Your task to perform on an android device: toggle pop-ups in chrome Image 0: 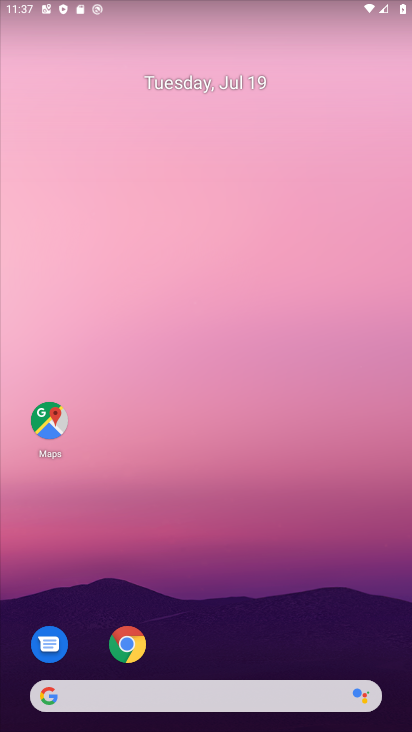
Step 0: click (121, 643)
Your task to perform on an android device: toggle pop-ups in chrome Image 1: 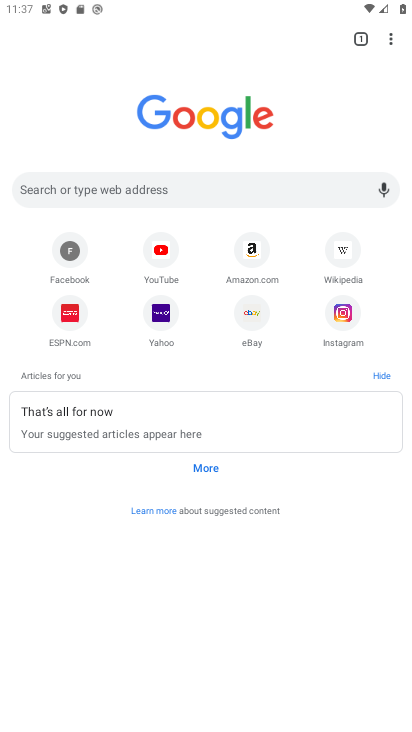
Step 1: click (399, 35)
Your task to perform on an android device: toggle pop-ups in chrome Image 2: 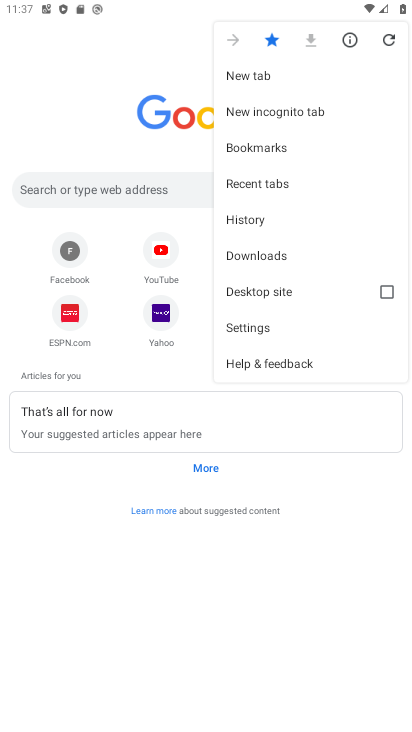
Step 2: click (264, 320)
Your task to perform on an android device: toggle pop-ups in chrome Image 3: 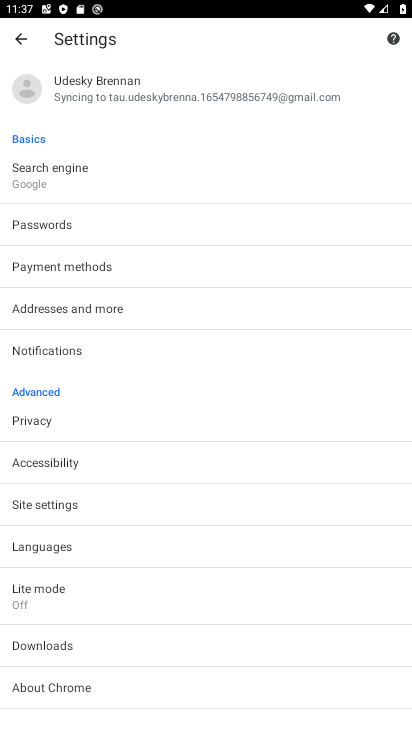
Step 3: click (51, 513)
Your task to perform on an android device: toggle pop-ups in chrome Image 4: 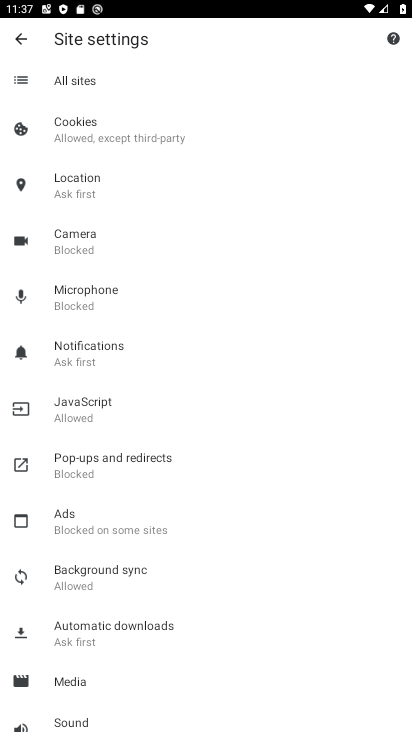
Step 4: click (90, 463)
Your task to perform on an android device: toggle pop-ups in chrome Image 5: 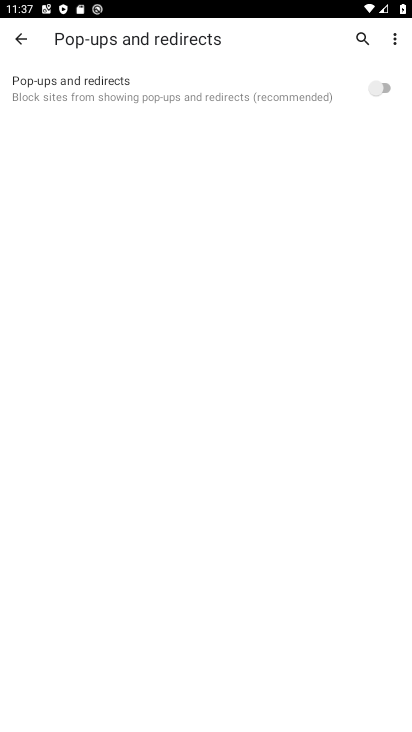
Step 5: click (385, 90)
Your task to perform on an android device: toggle pop-ups in chrome Image 6: 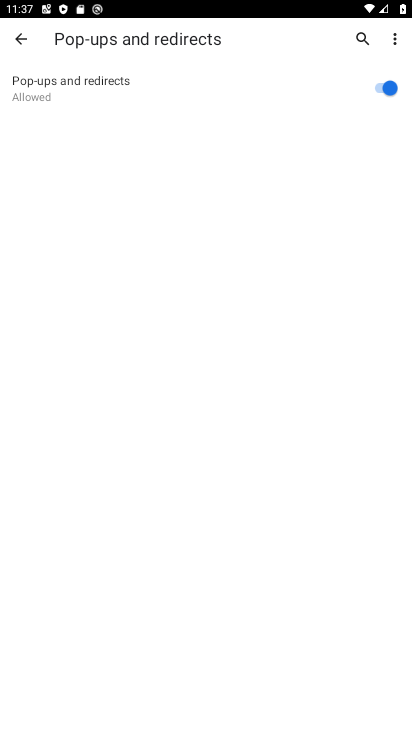
Step 6: task complete